Your task to perform on an android device: open a bookmark in the chrome app Image 0: 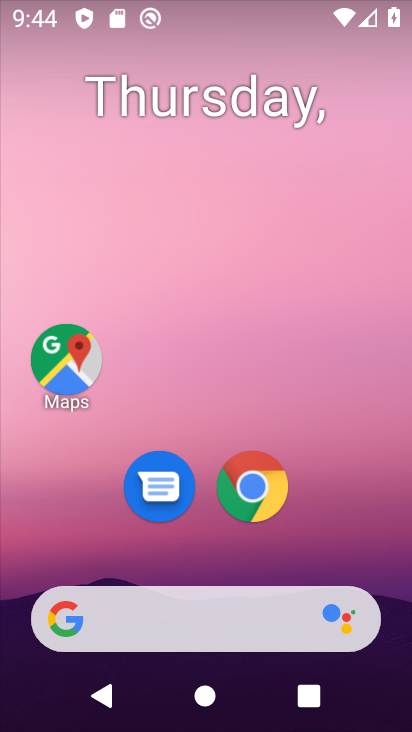
Step 0: click (256, 484)
Your task to perform on an android device: open a bookmark in the chrome app Image 1: 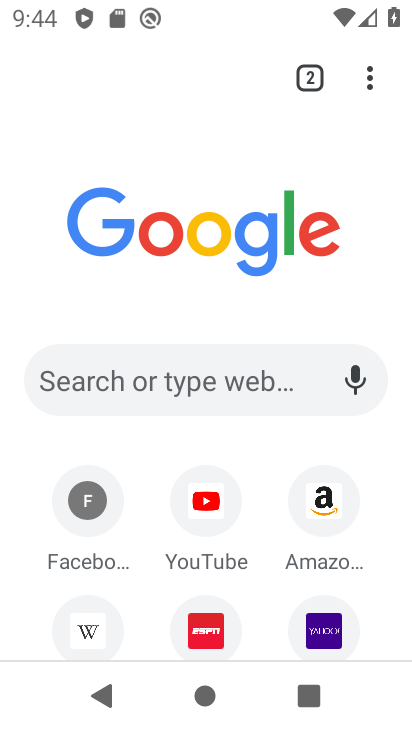
Step 1: task complete